Your task to perform on an android device: What is the news today? Image 0: 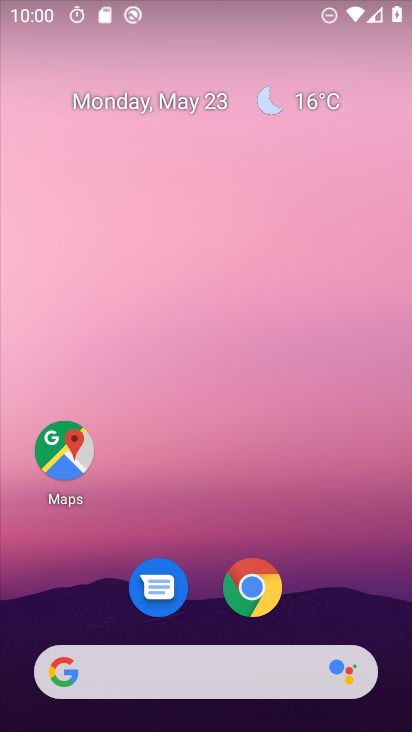
Step 0: click (220, 688)
Your task to perform on an android device: What is the news today? Image 1: 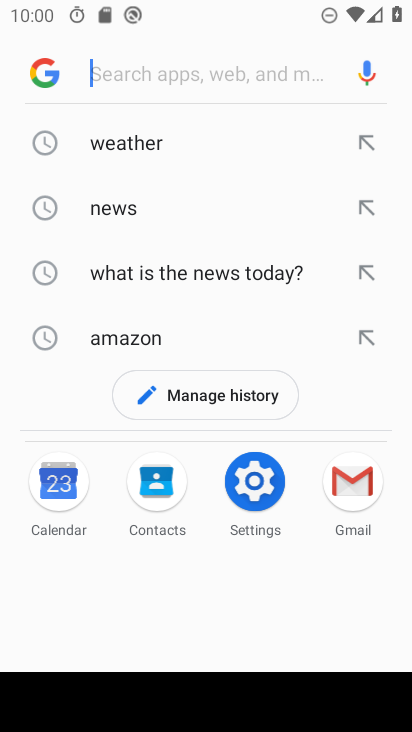
Step 1: click (108, 206)
Your task to perform on an android device: What is the news today? Image 2: 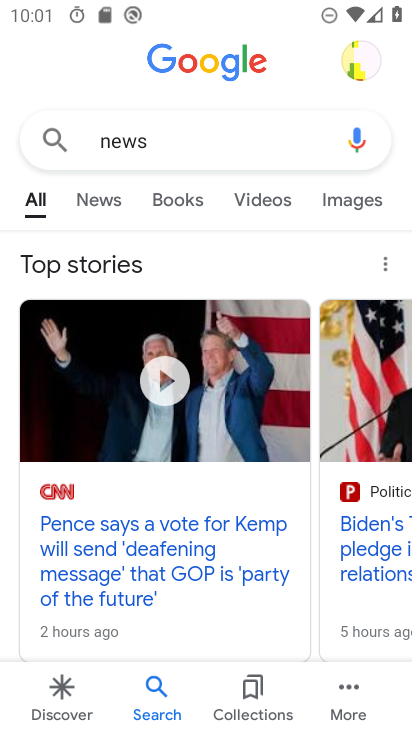
Step 2: task complete